Your task to perform on an android device: clear all cookies in the chrome app Image 0: 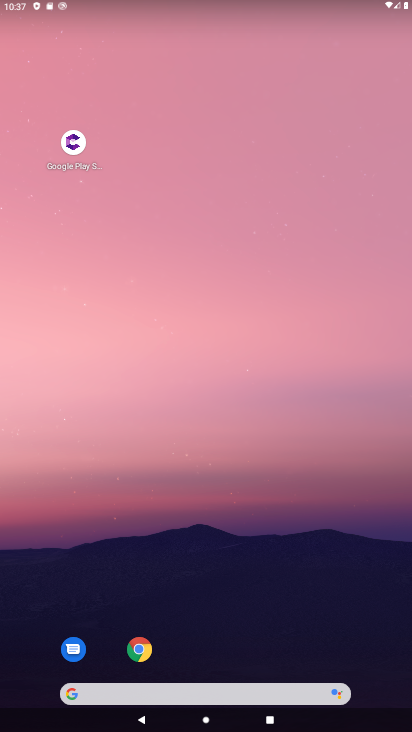
Step 0: drag from (211, 359) to (197, 262)
Your task to perform on an android device: clear all cookies in the chrome app Image 1: 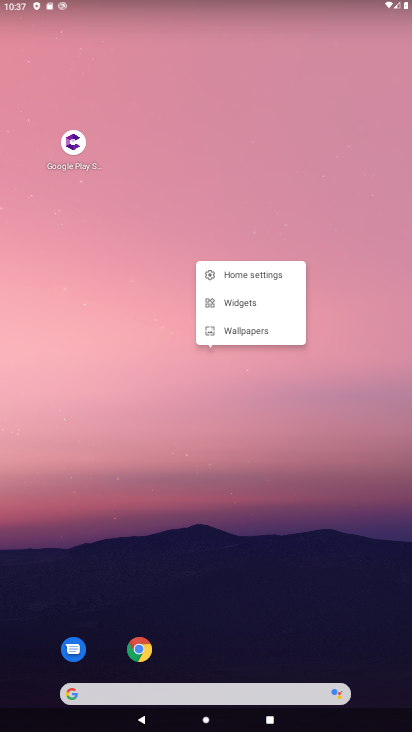
Step 1: click (130, 659)
Your task to perform on an android device: clear all cookies in the chrome app Image 2: 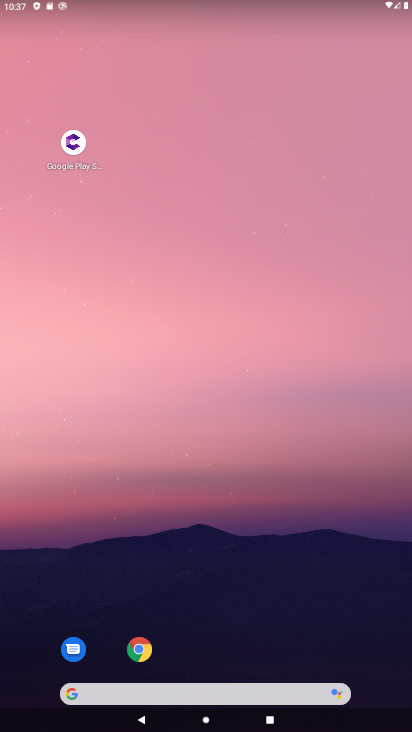
Step 2: click (137, 657)
Your task to perform on an android device: clear all cookies in the chrome app Image 3: 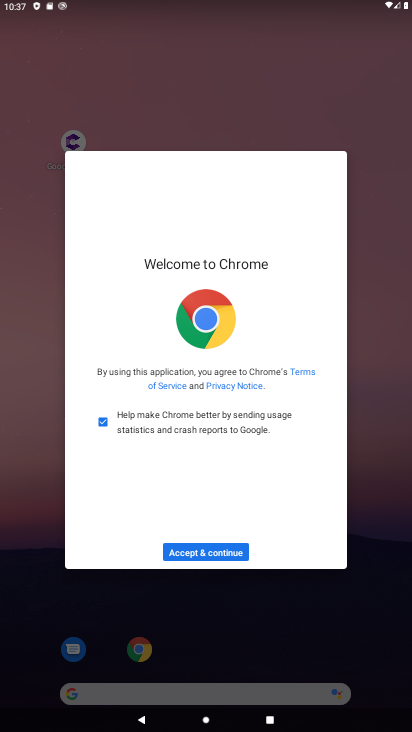
Step 3: click (225, 550)
Your task to perform on an android device: clear all cookies in the chrome app Image 4: 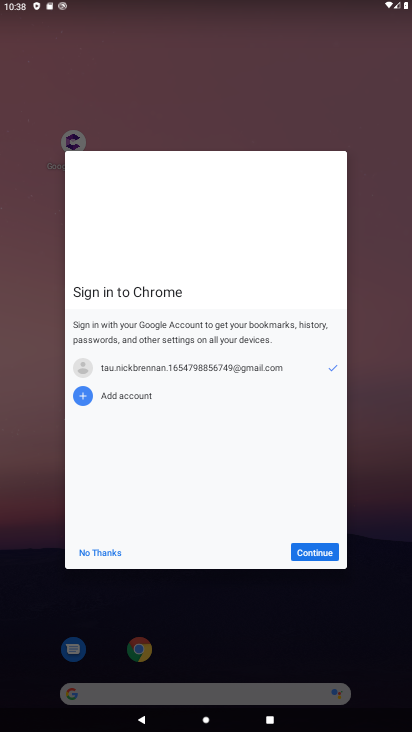
Step 4: click (319, 558)
Your task to perform on an android device: clear all cookies in the chrome app Image 5: 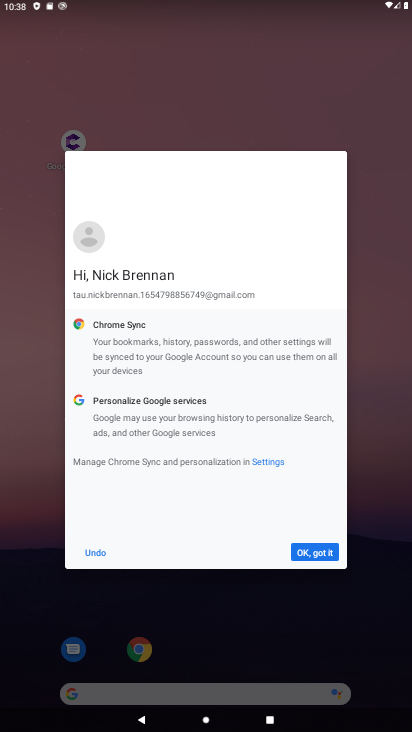
Step 5: click (323, 555)
Your task to perform on an android device: clear all cookies in the chrome app Image 6: 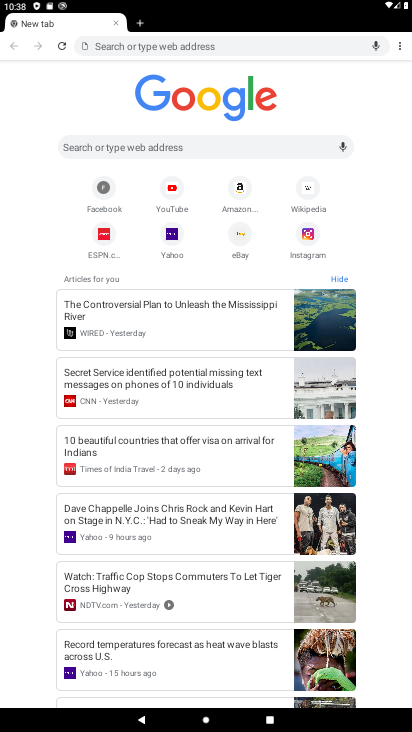
Step 6: task complete